Your task to perform on an android device: open app "Pluto TV - Live TV and Movies" (install if not already installed) Image 0: 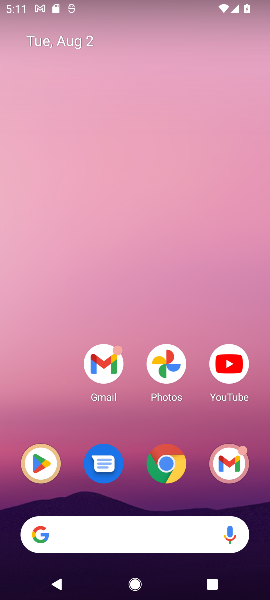
Step 0: press home button
Your task to perform on an android device: open app "Pluto TV - Live TV and Movies" (install if not already installed) Image 1: 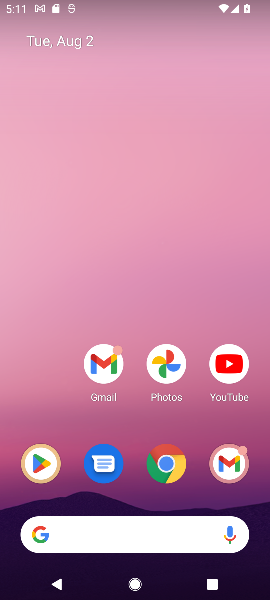
Step 1: click (36, 466)
Your task to perform on an android device: open app "Pluto TV - Live TV and Movies" (install if not already installed) Image 2: 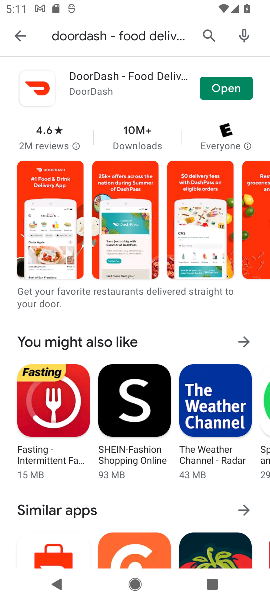
Step 2: click (203, 29)
Your task to perform on an android device: open app "Pluto TV - Live TV and Movies" (install if not already installed) Image 3: 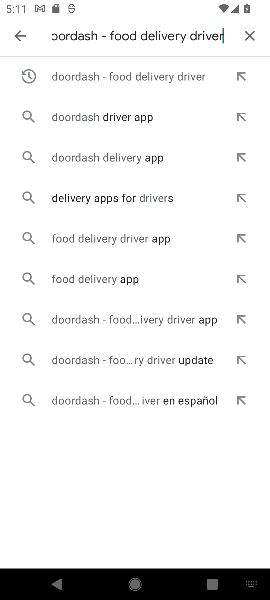
Step 3: click (249, 32)
Your task to perform on an android device: open app "Pluto TV - Live TV and Movies" (install if not already installed) Image 4: 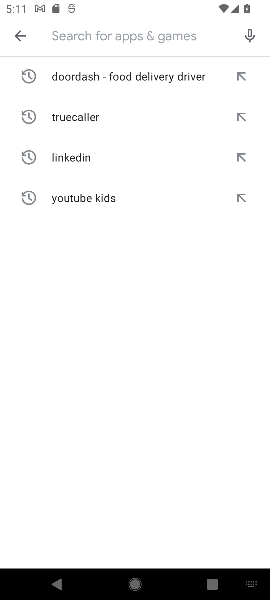
Step 4: type "Pluto TV - Live TV and Movies"
Your task to perform on an android device: open app "Pluto TV - Live TV and Movies" (install if not already installed) Image 5: 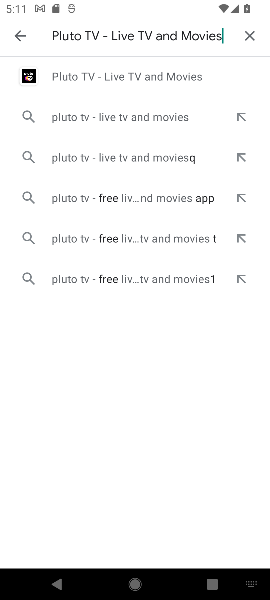
Step 5: click (150, 76)
Your task to perform on an android device: open app "Pluto TV - Live TV and Movies" (install if not already installed) Image 6: 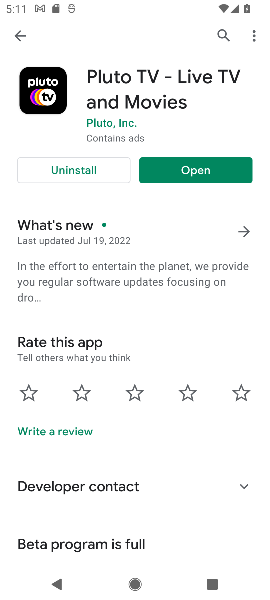
Step 6: click (216, 164)
Your task to perform on an android device: open app "Pluto TV - Live TV and Movies" (install if not already installed) Image 7: 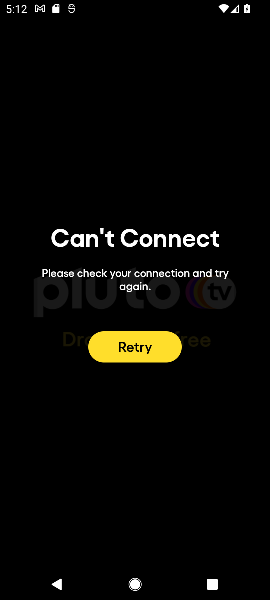
Step 7: task complete